Your task to perform on an android device: change text size in settings app Image 0: 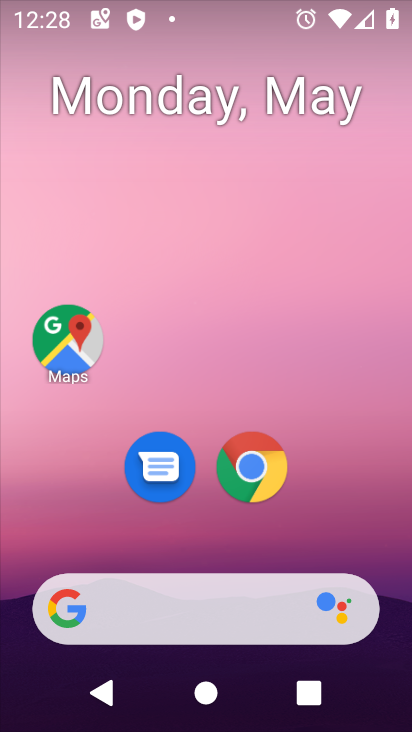
Step 0: drag from (380, 635) to (274, 81)
Your task to perform on an android device: change text size in settings app Image 1: 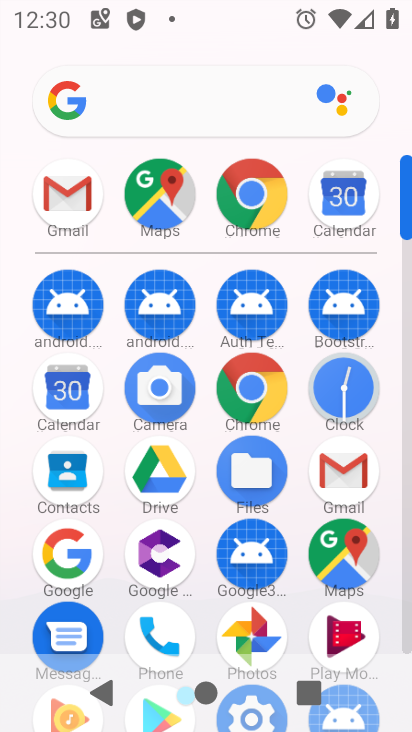
Step 1: drag from (311, 612) to (309, 181)
Your task to perform on an android device: change text size in settings app Image 2: 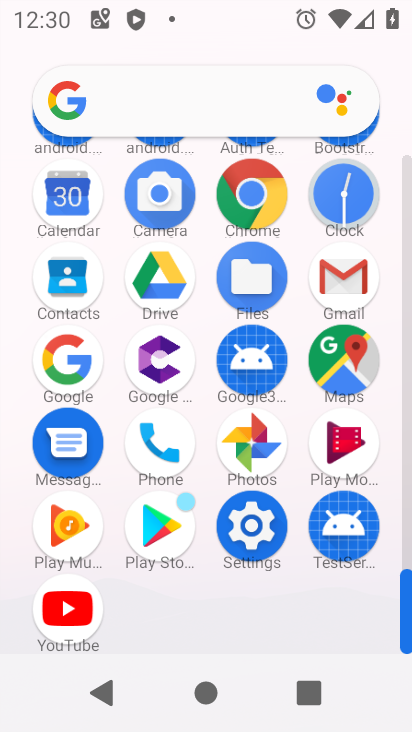
Step 2: click (256, 546)
Your task to perform on an android device: change text size in settings app Image 3: 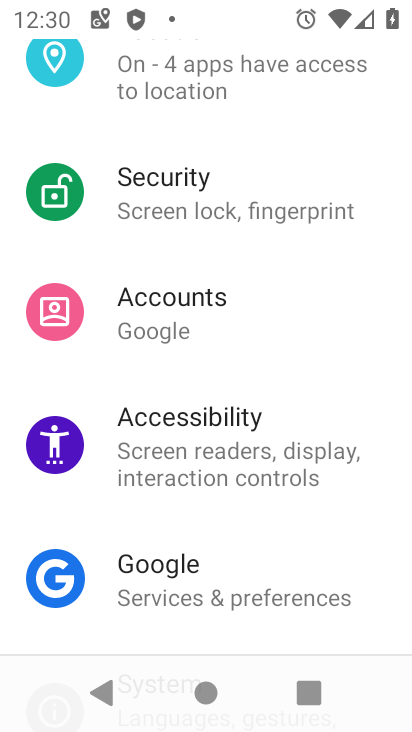
Step 3: drag from (232, 135) to (248, 567)
Your task to perform on an android device: change text size in settings app Image 4: 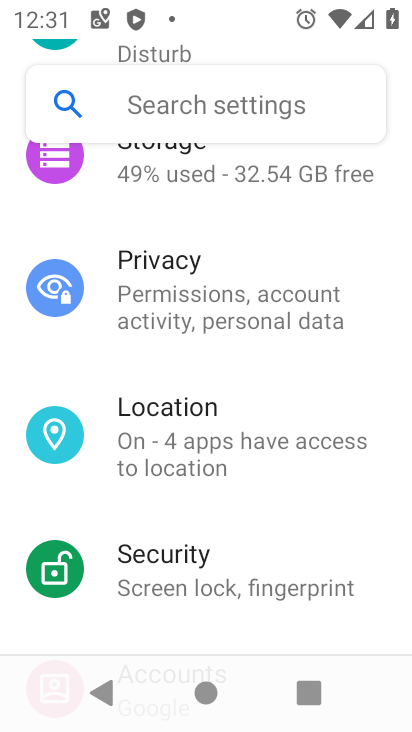
Step 4: drag from (126, 192) to (138, 632)
Your task to perform on an android device: change text size in settings app Image 5: 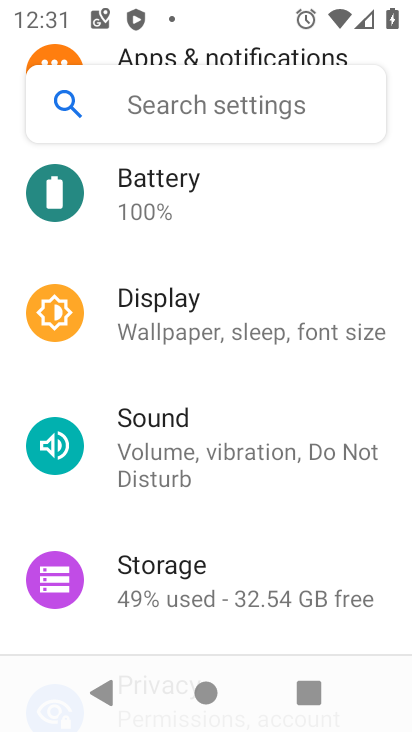
Step 5: click (176, 318)
Your task to perform on an android device: change text size in settings app Image 6: 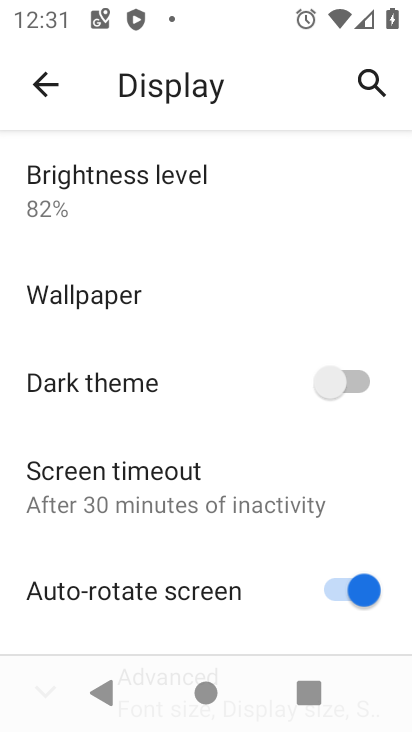
Step 6: drag from (137, 555) to (373, 113)
Your task to perform on an android device: change text size in settings app Image 7: 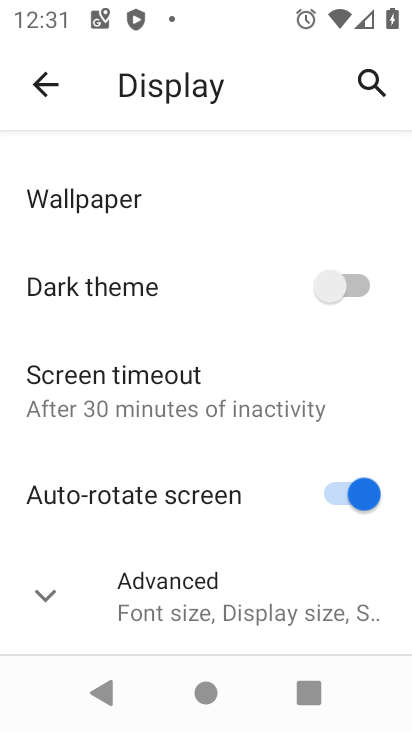
Step 7: click (163, 590)
Your task to perform on an android device: change text size in settings app Image 8: 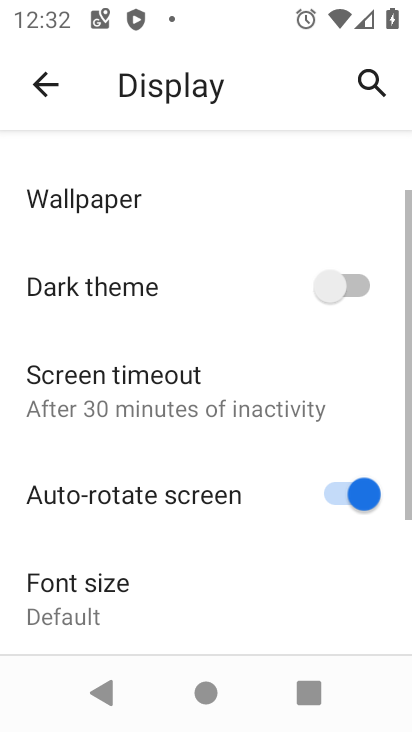
Step 8: click (163, 590)
Your task to perform on an android device: change text size in settings app Image 9: 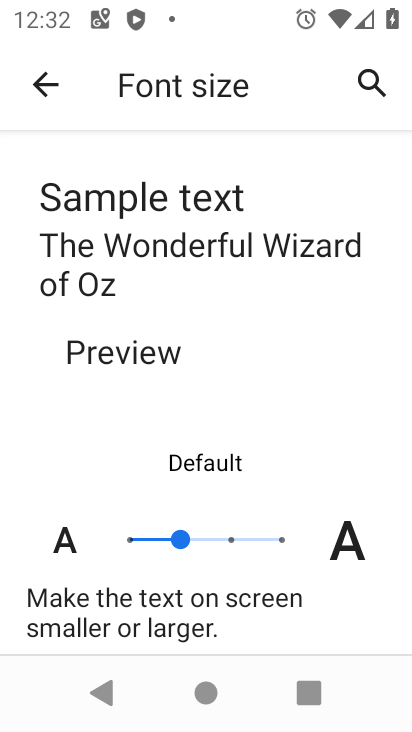
Step 9: click (225, 530)
Your task to perform on an android device: change text size in settings app Image 10: 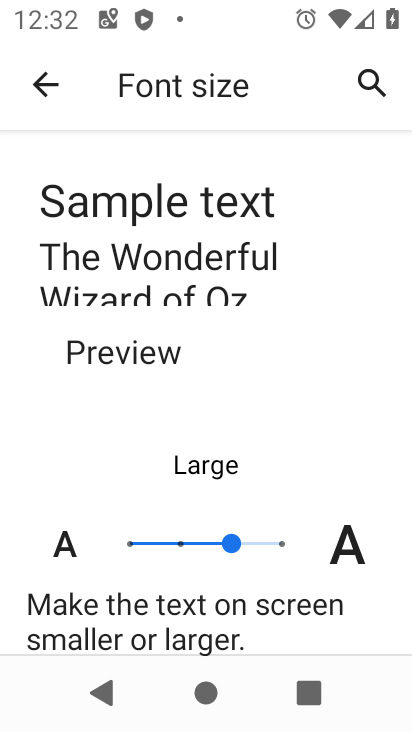
Step 10: task complete